Your task to perform on an android device: Do I have any events this weekend? Image 0: 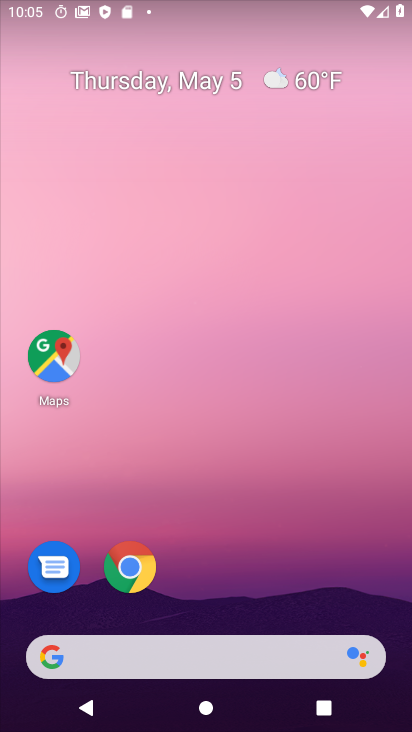
Step 0: drag from (328, 551) to (234, 100)
Your task to perform on an android device: Do I have any events this weekend? Image 1: 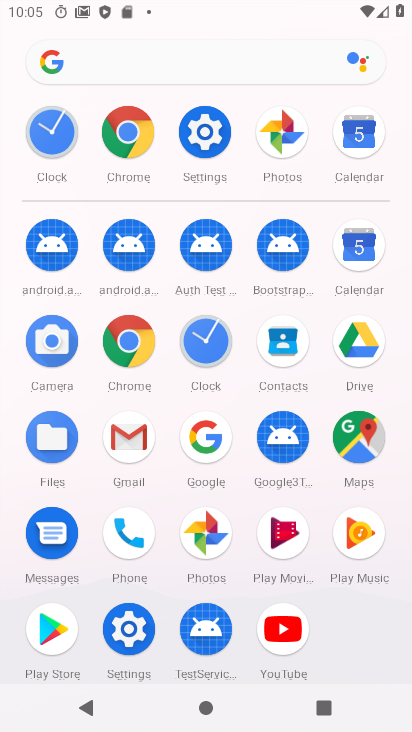
Step 1: click (355, 263)
Your task to perform on an android device: Do I have any events this weekend? Image 2: 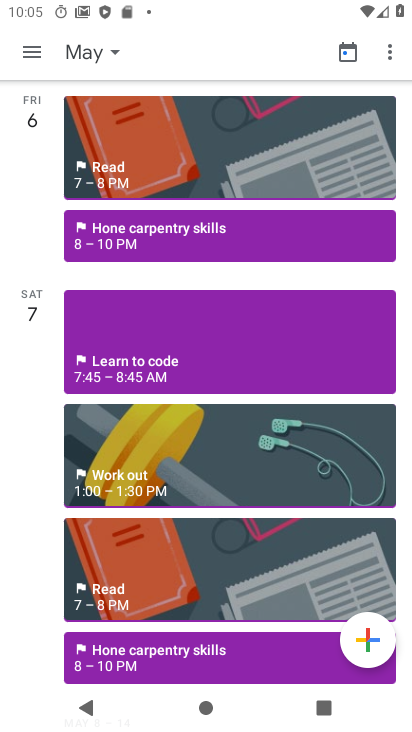
Step 2: click (89, 45)
Your task to perform on an android device: Do I have any events this weekend? Image 3: 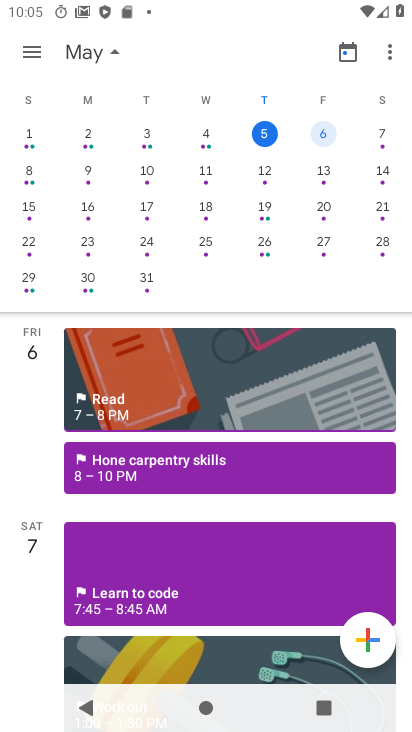
Step 3: click (382, 133)
Your task to perform on an android device: Do I have any events this weekend? Image 4: 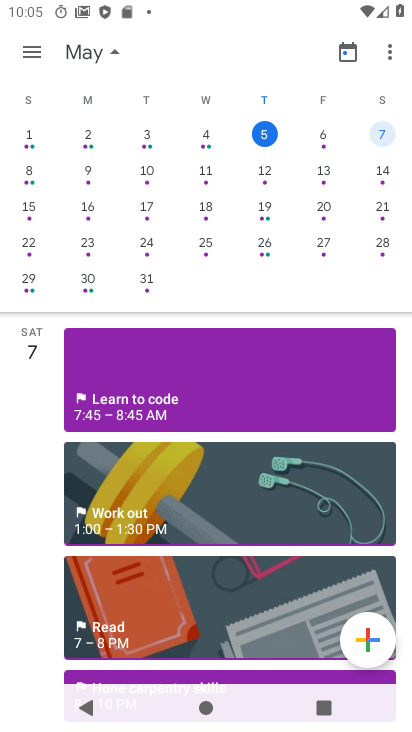
Step 4: task complete